Your task to perform on an android device: toggle airplane mode Image 0: 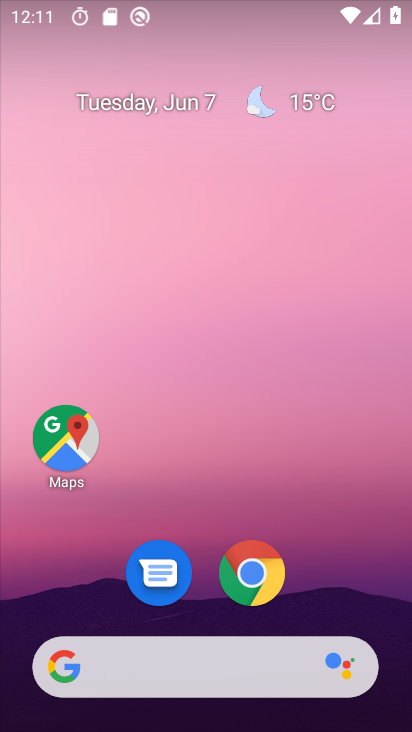
Step 0: drag from (197, 625) to (213, 268)
Your task to perform on an android device: toggle airplane mode Image 1: 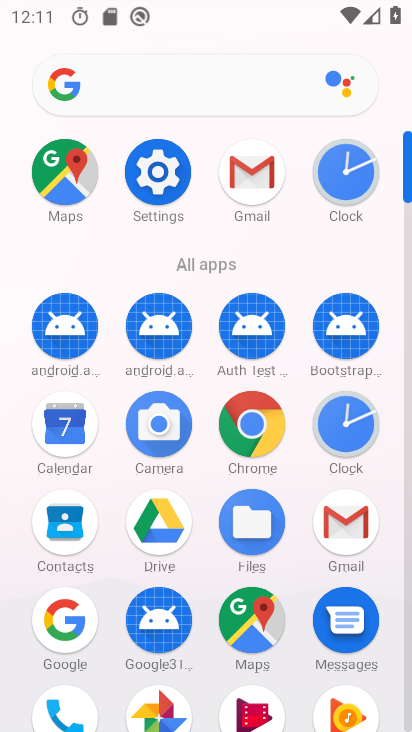
Step 1: click (168, 181)
Your task to perform on an android device: toggle airplane mode Image 2: 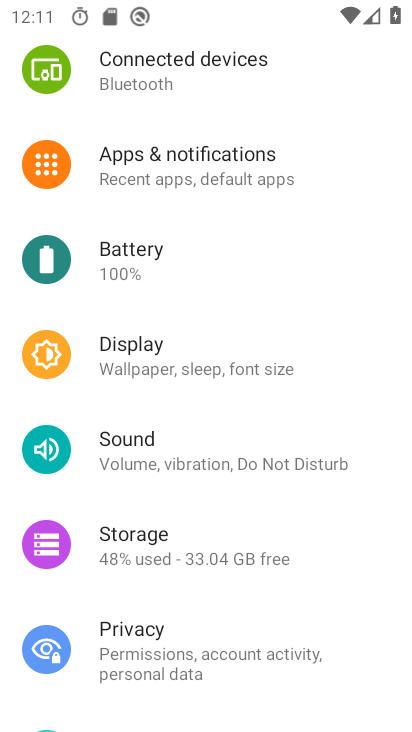
Step 2: drag from (252, 177) to (278, 423)
Your task to perform on an android device: toggle airplane mode Image 3: 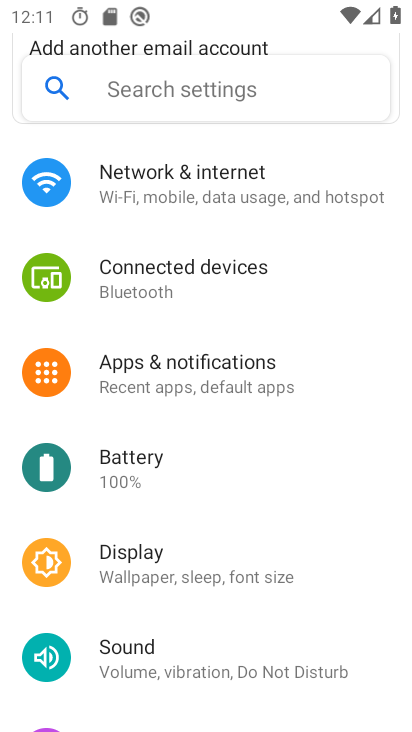
Step 3: click (260, 209)
Your task to perform on an android device: toggle airplane mode Image 4: 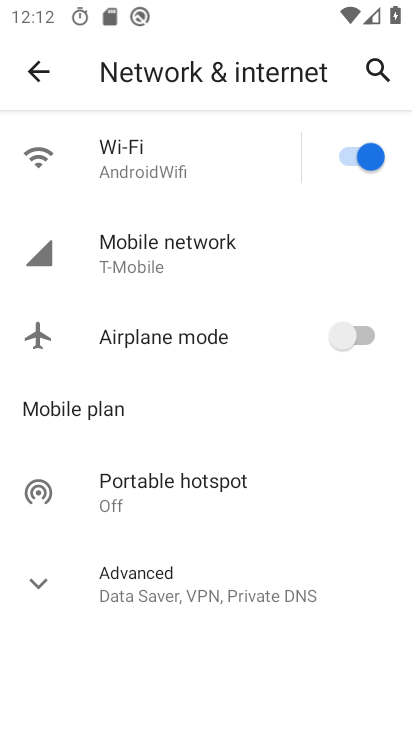
Step 4: click (358, 332)
Your task to perform on an android device: toggle airplane mode Image 5: 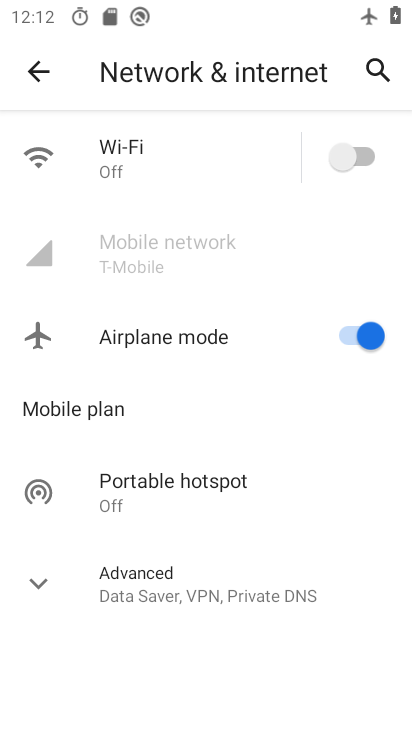
Step 5: task complete